Your task to perform on an android device: Is it going to rain this weekend? Image 0: 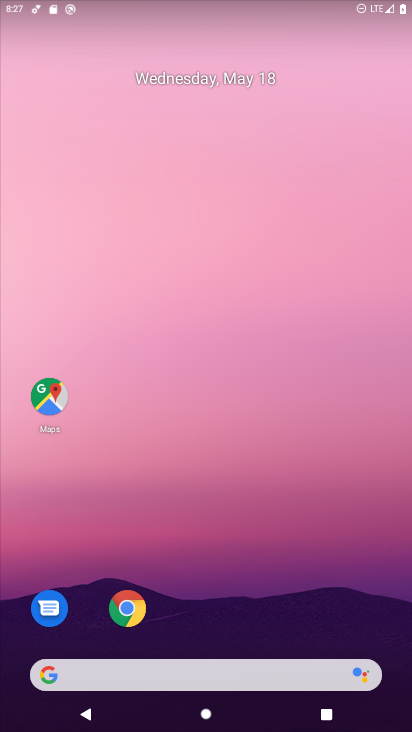
Step 0: drag from (276, 610) to (259, 73)
Your task to perform on an android device: Is it going to rain this weekend? Image 1: 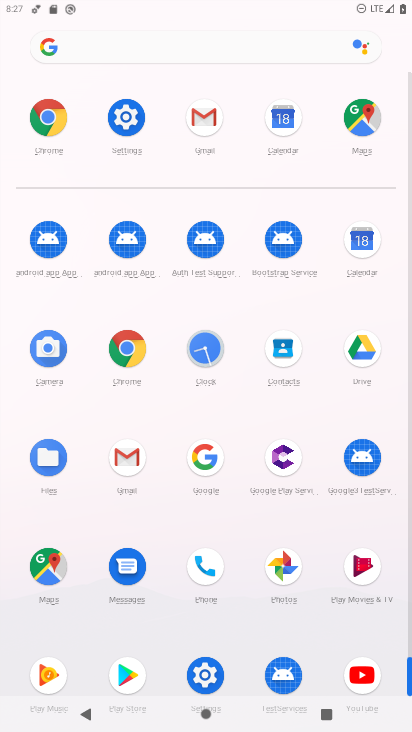
Step 1: click (359, 237)
Your task to perform on an android device: Is it going to rain this weekend? Image 2: 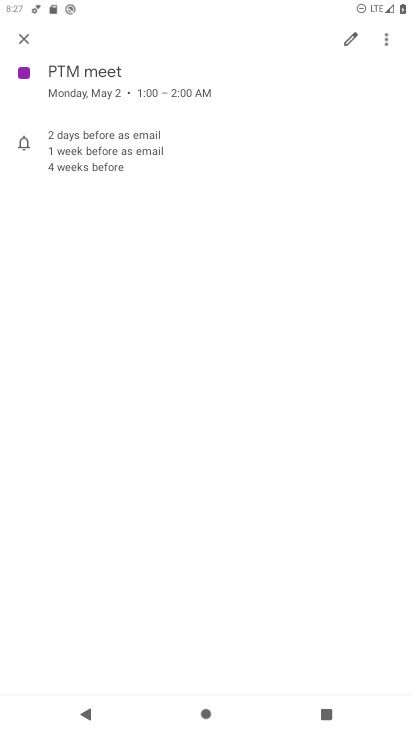
Step 2: press home button
Your task to perform on an android device: Is it going to rain this weekend? Image 3: 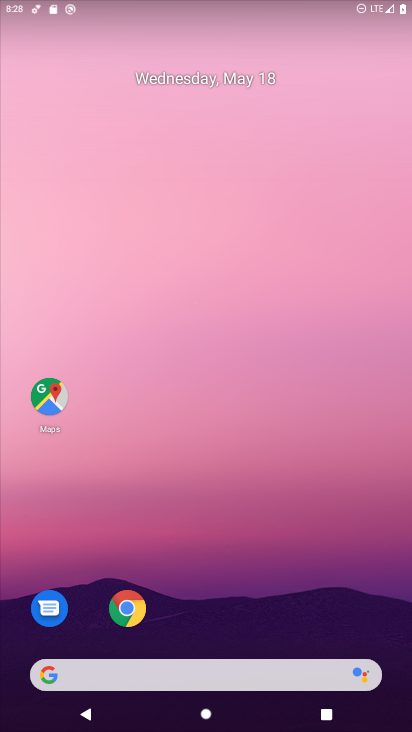
Step 3: drag from (286, 613) to (289, 100)
Your task to perform on an android device: Is it going to rain this weekend? Image 4: 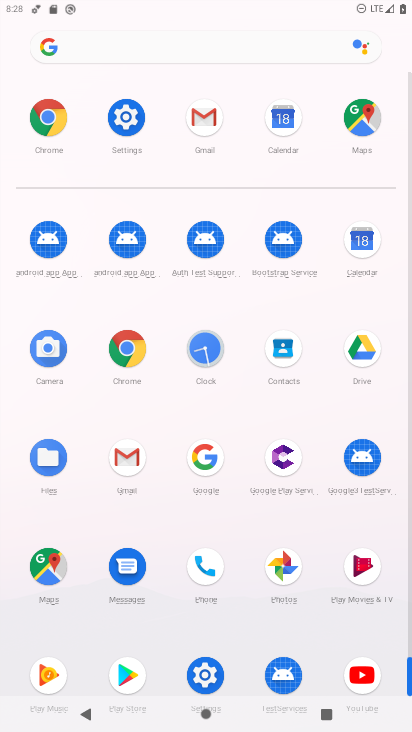
Step 4: drag from (170, 157) to (177, 646)
Your task to perform on an android device: Is it going to rain this weekend? Image 5: 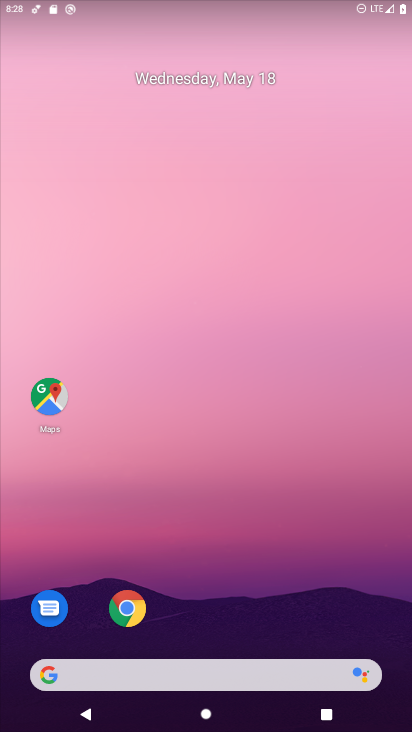
Step 5: drag from (10, 255) to (410, 216)
Your task to perform on an android device: Is it going to rain this weekend? Image 6: 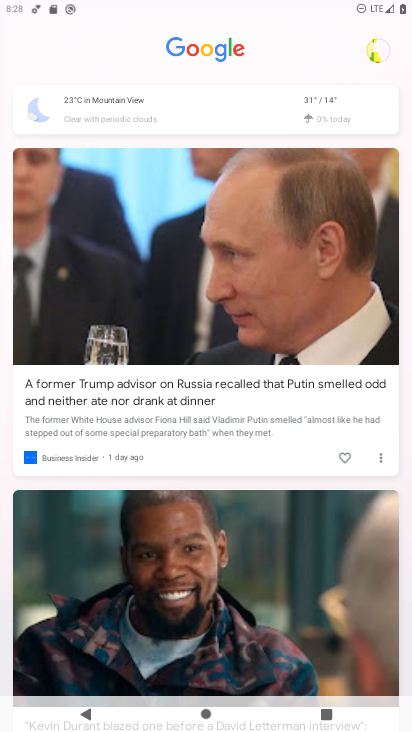
Step 6: click (312, 111)
Your task to perform on an android device: Is it going to rain this weekend? Image 7: 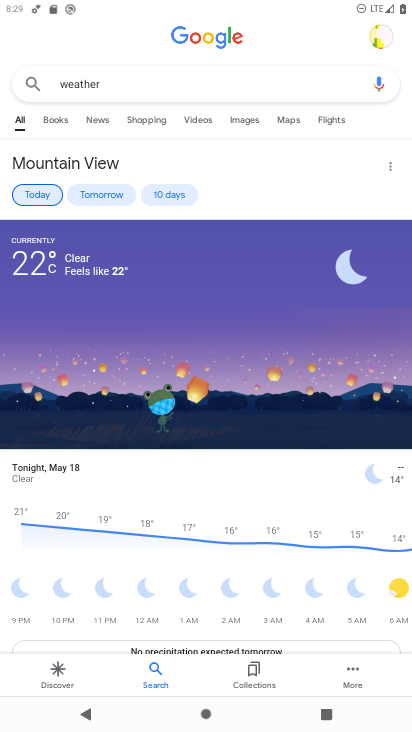
Step 7: click (180, 191)
Your task to perform on an android device: Is it going to rain this weekend? Image 8: 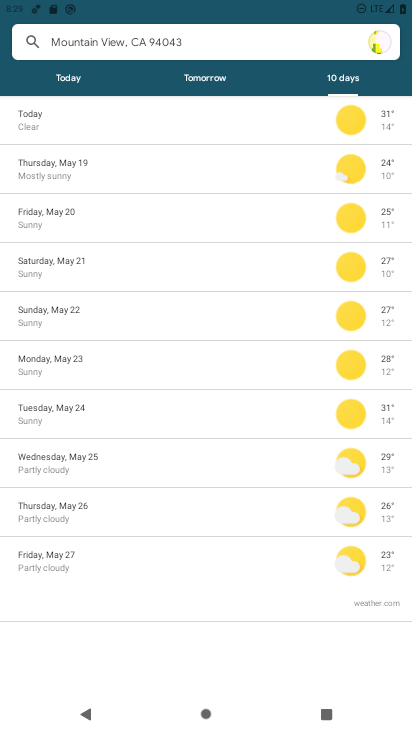
Step 8: task complete